Your task to perform on an android device: Turn on the flashlight Image 0: 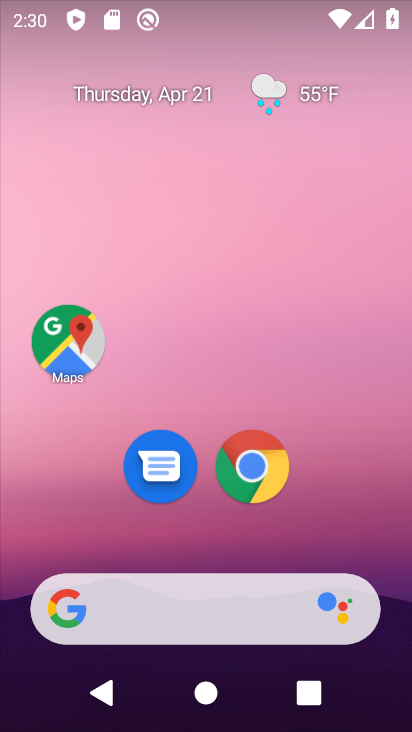
Step 0: drag from (298, 527) to (254, 78)
Your task to perform on an android device: Turn on the flashlight Image 1: 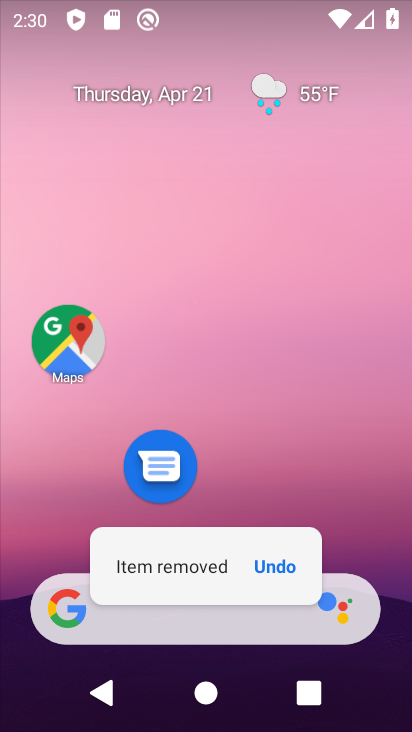
Step 1: click (275, 507)
Your task to perform on an android device: Turn on the flashlight Image 2: 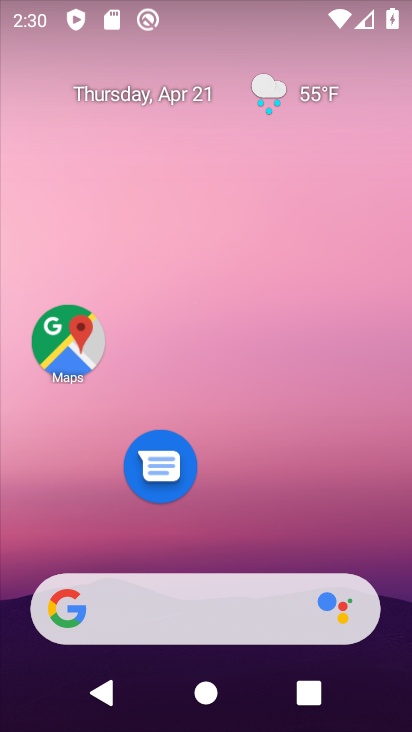
Step 2: task complete